Your task to perform on an android device: Do I have any events today? Image 0: 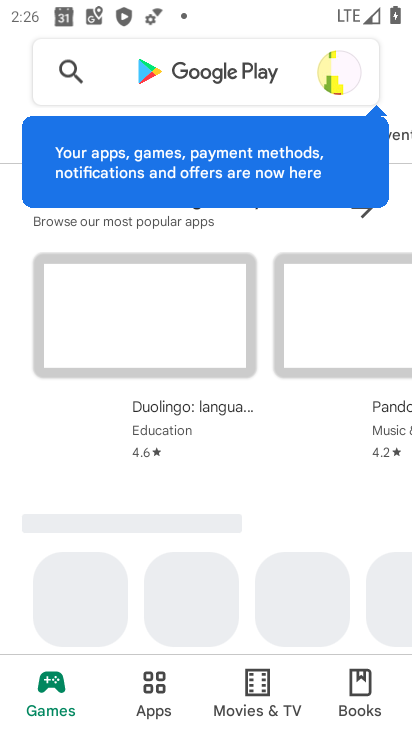
Step 0: press home button
Your task to perform on an android device: Do I have any events today? Image 1: 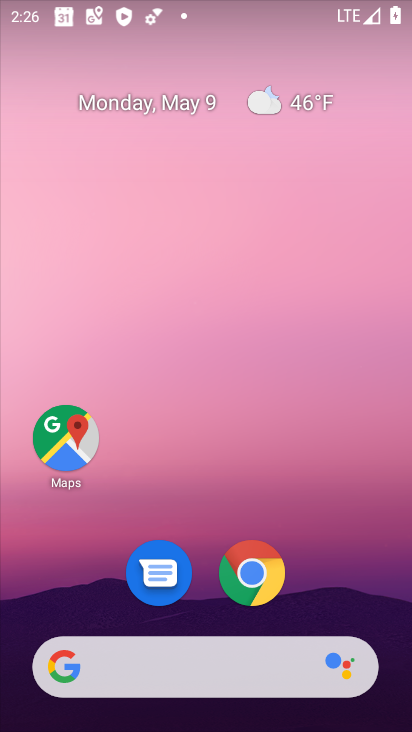
Step 1: drag from (201, 595) to (214, 144)
Your task to perform on an android device: Do I have any events today? Image 2: 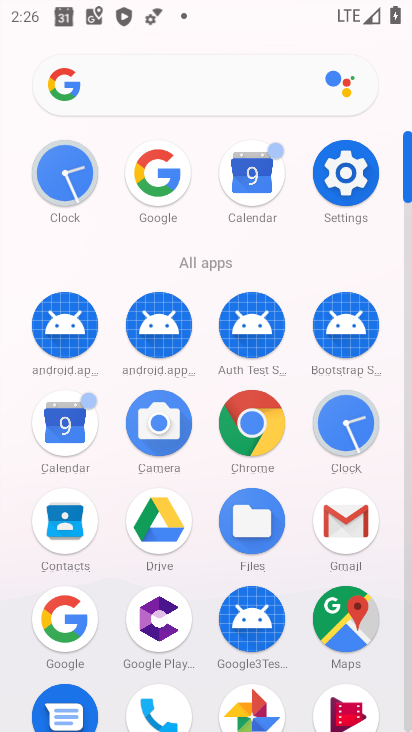
Step 2: click (62, 421)
Your task to perform on an android device: Do I have any events today? Image 3: 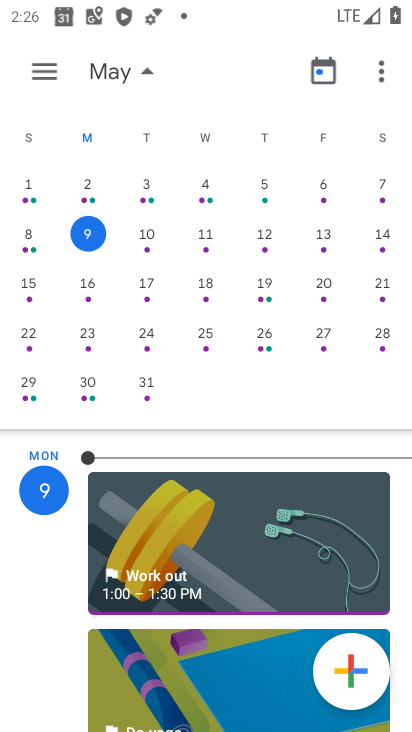
Step 3: click (97, 240)
Your task to perform on an android device: Do I have any events today? Image 4: 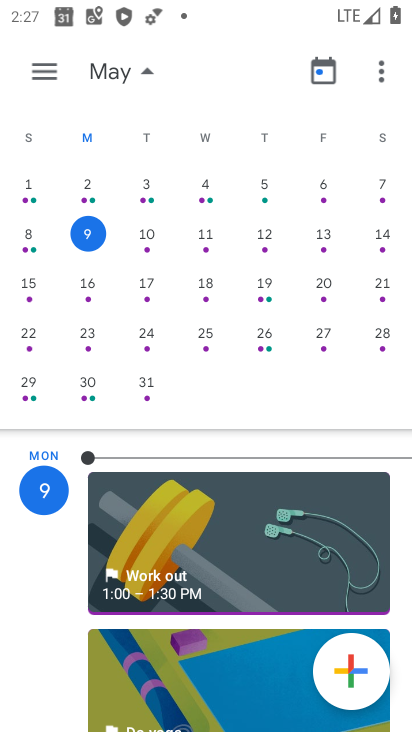
Step 4: task complete